Your task to perform on an android device: Open CNN.com Image 0: 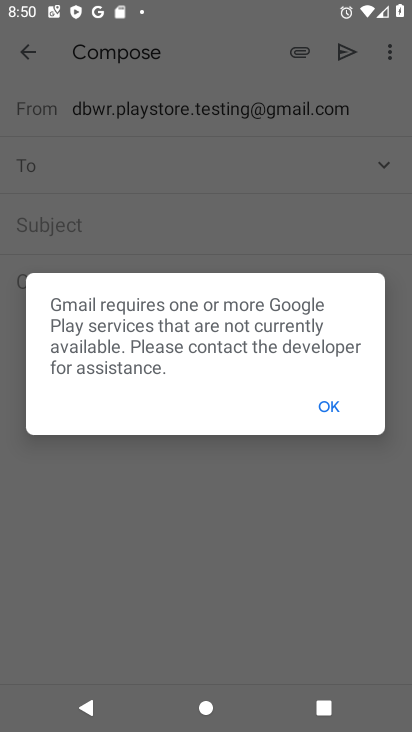
Step 0: press back button
Your task to perform on an android device: Open CNN.com Image 1: 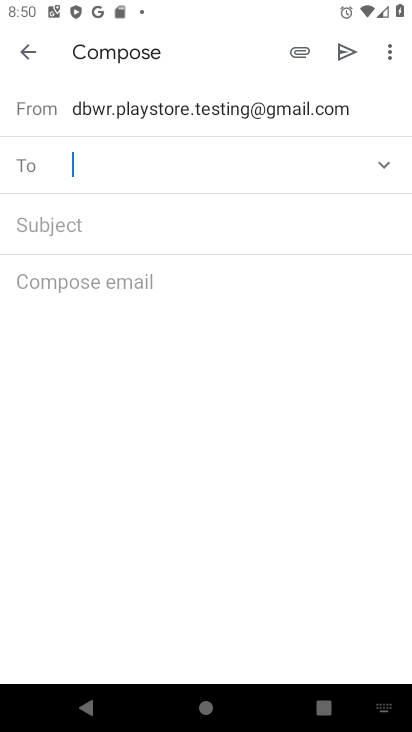
Step 1: press back button
Your task to perform on an android device: Open CNN.com Image 2: 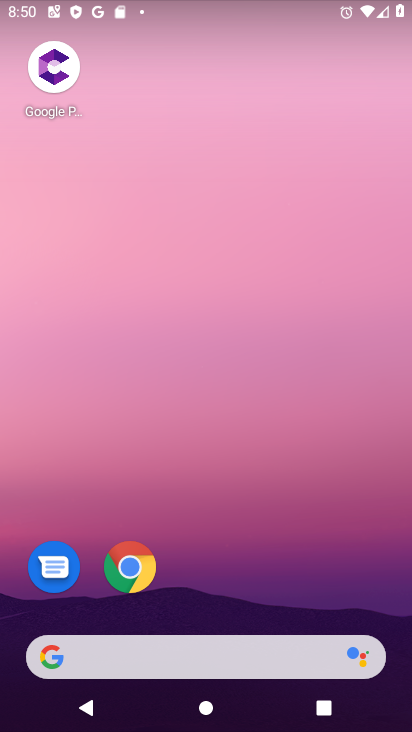
Step 2: drag from (353, 545) to (300, 12)
Your task to perform on an android device: Open CNN.com Image 3: 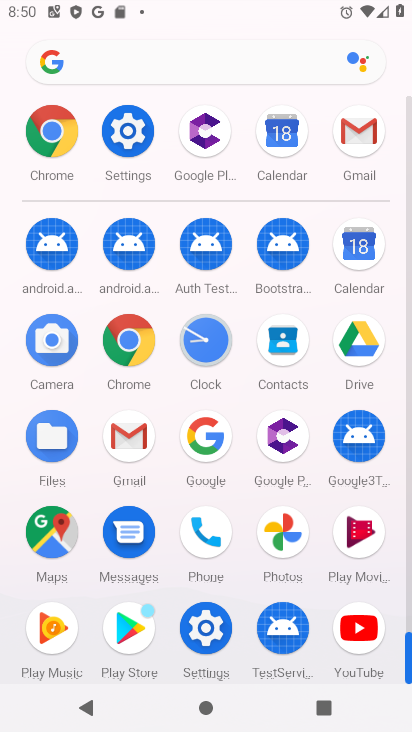
Step 3: click (127, 337)
Your task to perform on an android device: Open CNN.com Image 4: 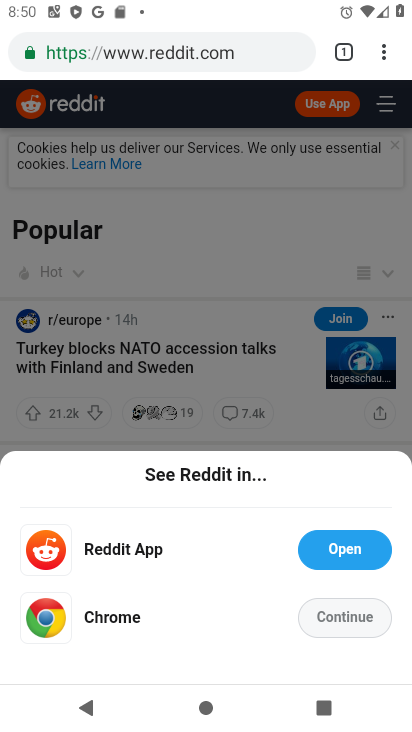
Step 4: click (167, 55)
Your task to perform on an android device: Open CNN.com Image 5: 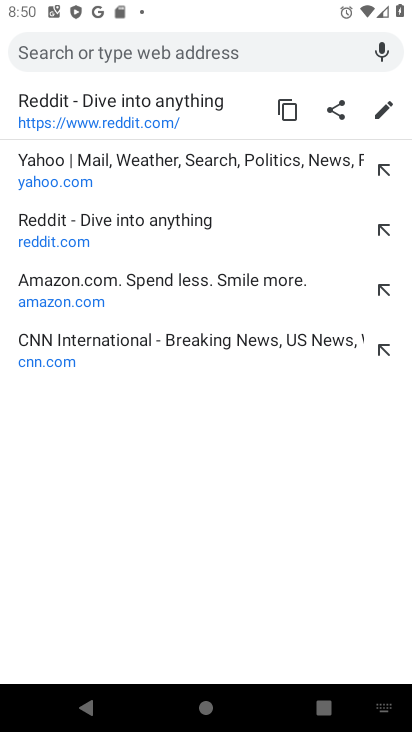
Step 5: type "CNN.com"
Your task to perform on an android device: Open CNN.com Image 6: 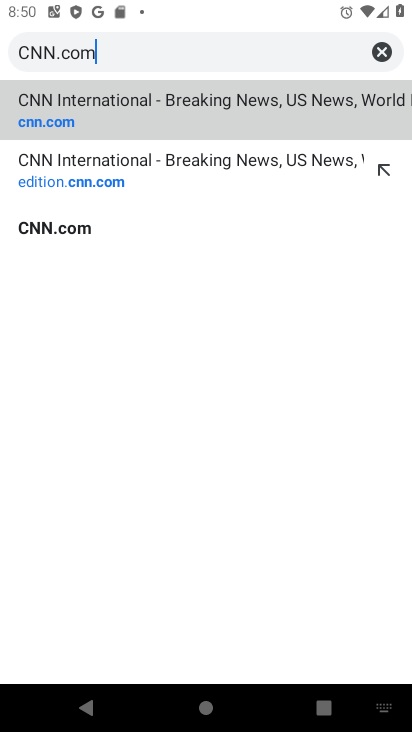
Step 6: type ""
Your task to perform on an android device: Open CNN.com Image 7: 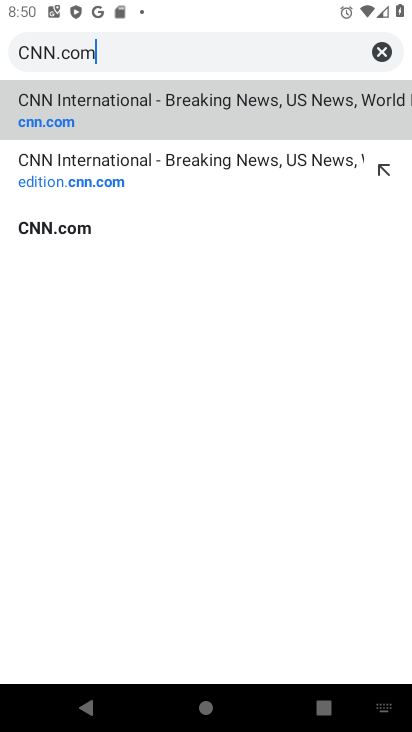
Step 7: click (133, 119)
Your task to perform on an android device: Open CNN.com Image 8: 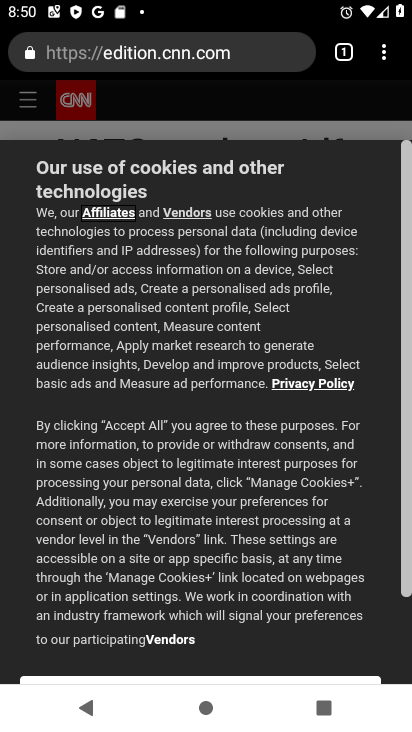
Step 8: task complete